Your task to perform on an android device: Show me recent news Image 0: 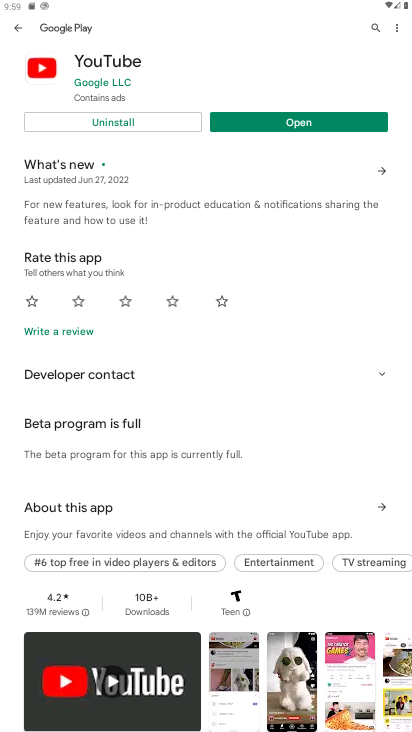
Step 0: press home button
Your task to perform on an android device: Show me recent news Image 1: 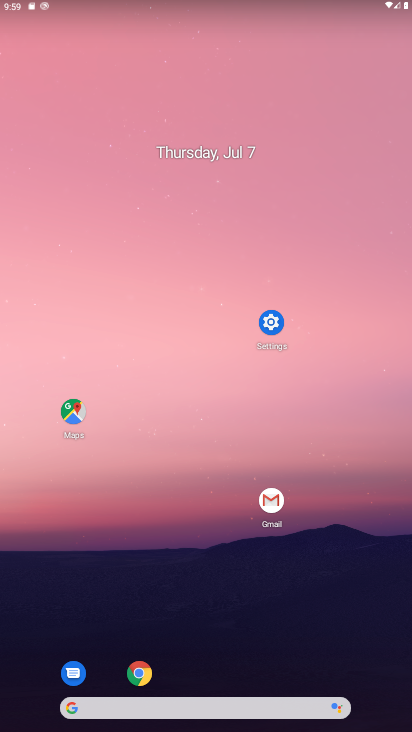
Step 1: task complete